Your task to perform on an android device: Show me the alarms in the clock app Image 0: 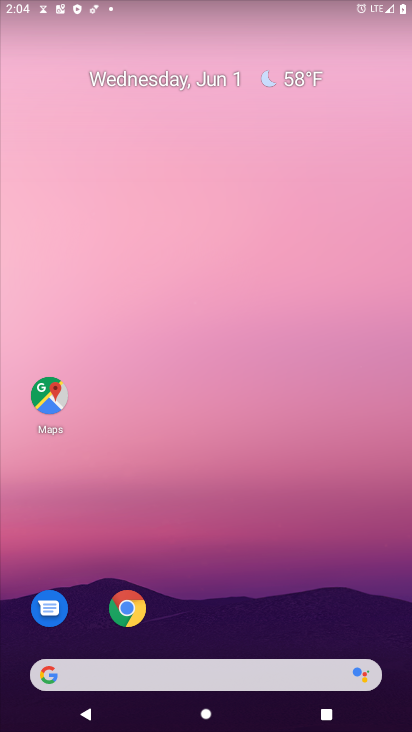
Step 0: drag from (223, 574) to (247, 179)
Your task to perform on an android device: Show me the alarms in the clock app Image 1: 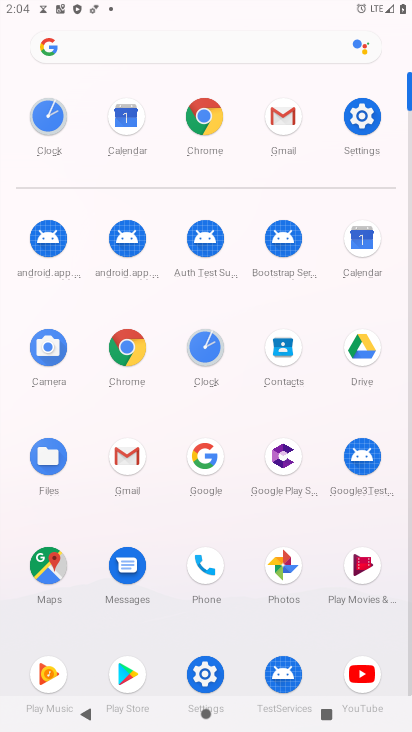
Step 1: click (191, 343)
Your task to perform on an android device: Show me the alarms in the clock app Image 2: 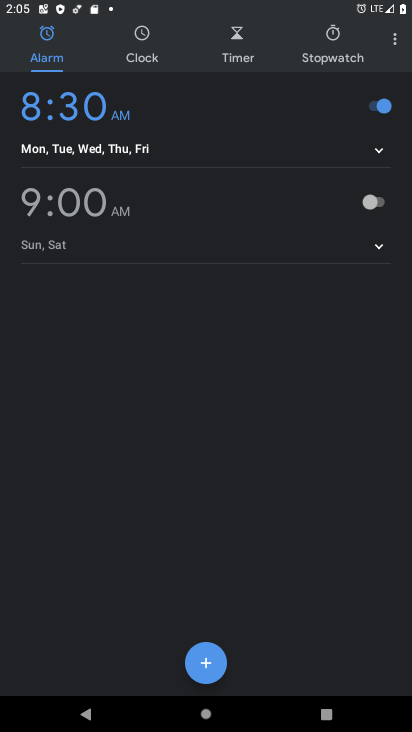
Step 2: task complete